Your task to perform on an android device: turn off notifications settings in the gmail app Image 0: 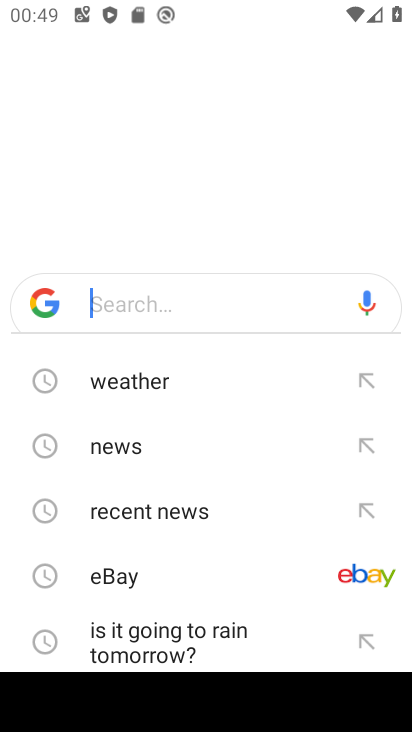
Step 0: press home button
Your task to perform on an android device: turn off notifications settings in the gmail app Image 1: 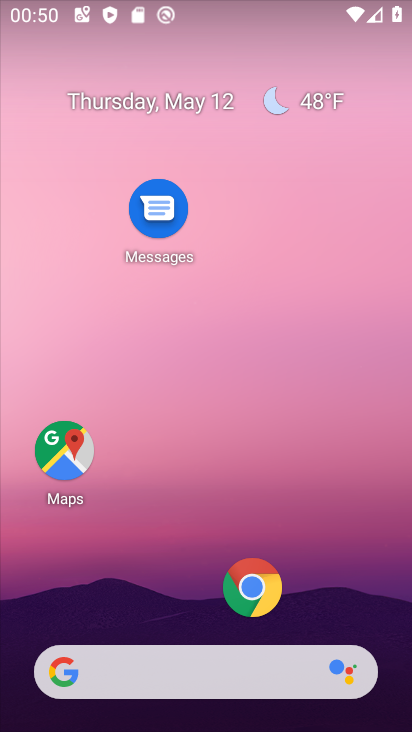
Step 1: drag from (196, 629) to (88, 22)
Your task to perform on an android device: turn off notifications settings in the gmail app Image 2: 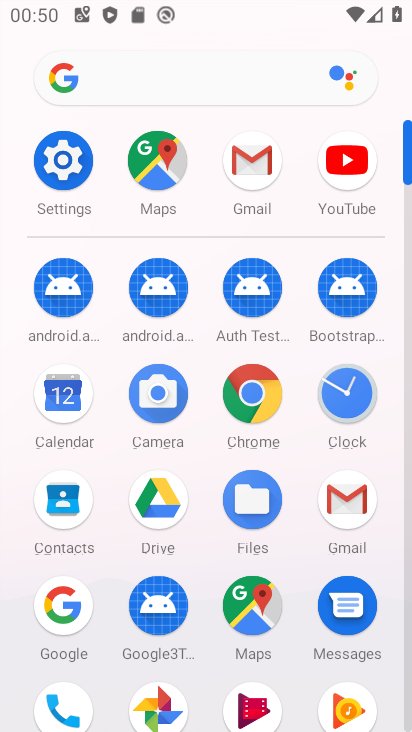
Step 2: click (75, 173)
Your task to perform on an android device: turn off notifications settings in the gmail app Image 3: 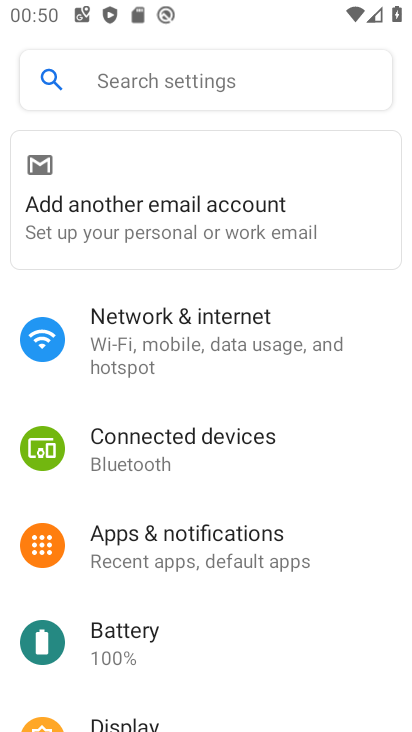
Step 3: press home button
Your task to perform on an android device: turn off notifications settings in the gmail app Image 4: 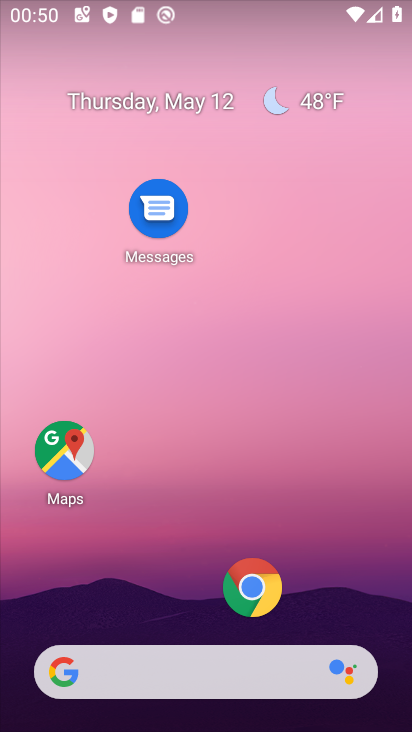
Step 4: drag from (192, 624) to (146, 2)
Your task to perform on an android device: turn off notifications settings in the gmail app Image 5: 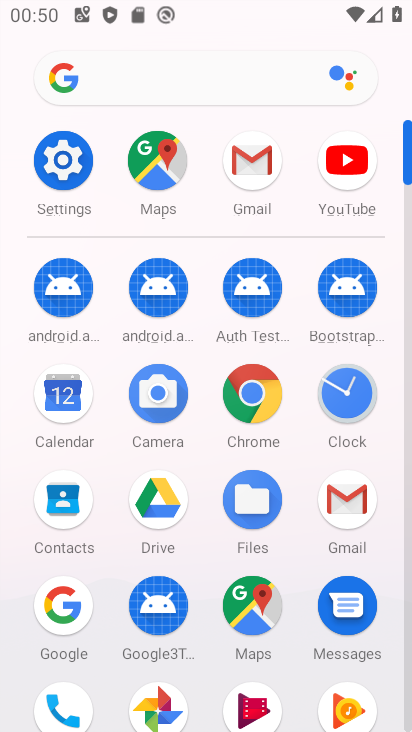
Step 5: click (345, 506)
Your task to perform on an android device: turn off notifications settings in the gmail app Image 6: 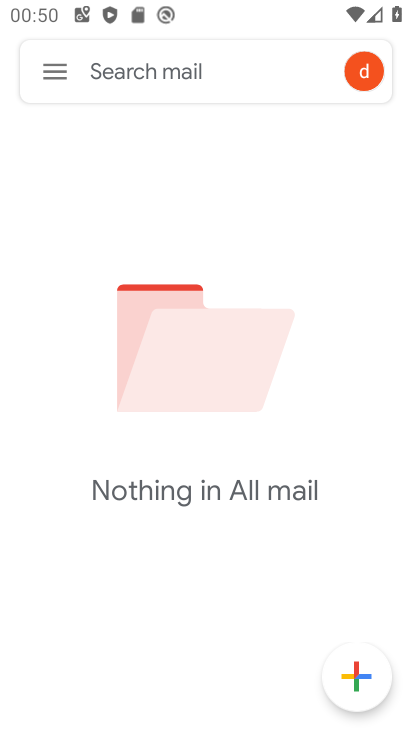
Step 6: click (56, 70)
Your task to perform on an android device: turn off notifications settings in the gmail app Image 7: 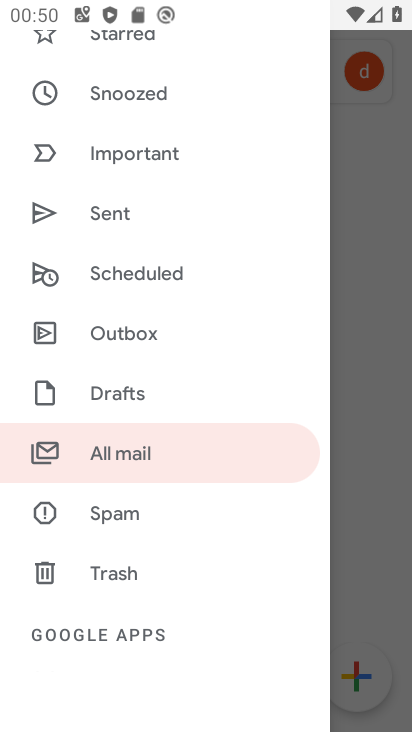
Step 7: drag from (147, 465) to (115, 135)
Your task to perform on an android device: turn off notifications settings in the gmail app Image 8: 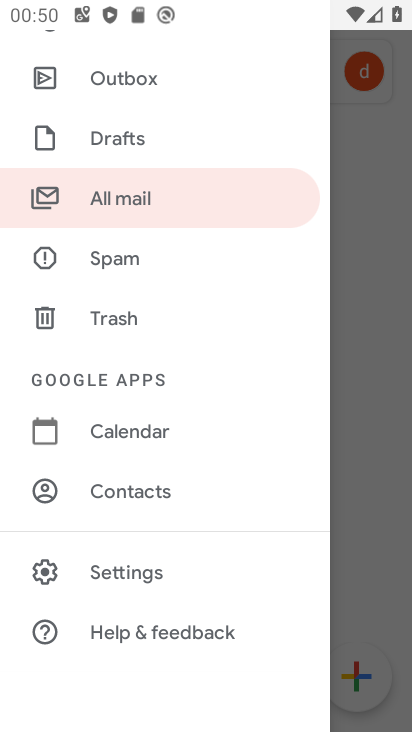
Step 8: click (132, 568)
Your task to perform on an android device: turn off notifications settings in the gmail app Image 9: 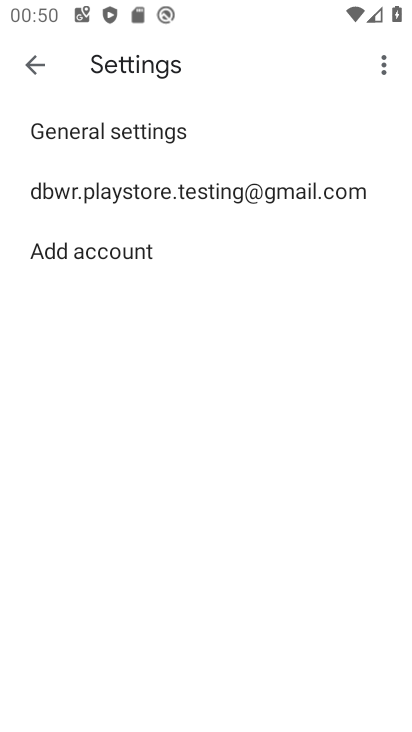
Step 9: click (102, 122)
Your task to perform on an android device: turn off notifications settings in the gmail app Image 10: 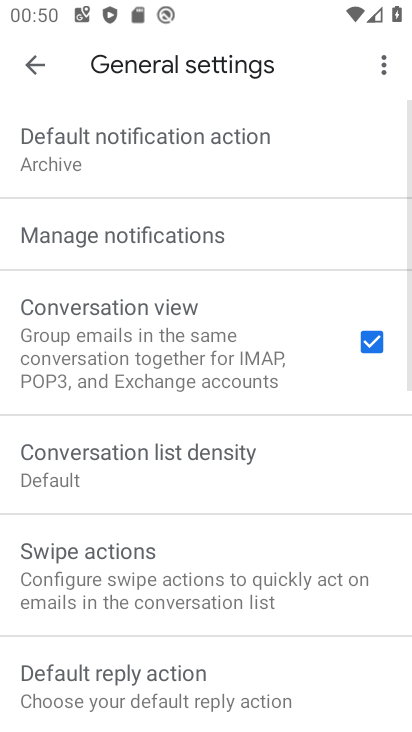
Step 10: click (204, 242)
Your task to perform on an android device: turn off notifications settings in the gmail app Image 11: 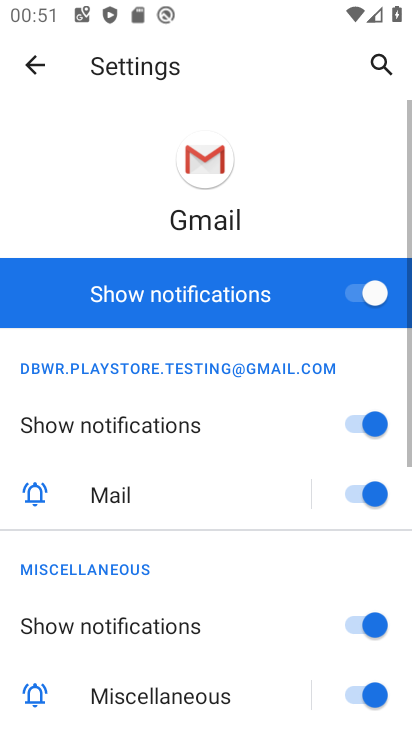
Step 11: click (367, 284)
Your task to perform on an android device: turn off notifications settings in the gmail app Image 12: 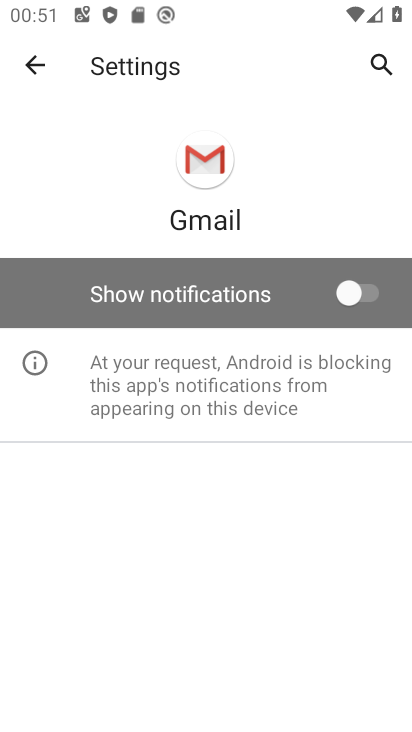
Step 12: task complete